Your task to perform on an android device: Open maps Image 0: 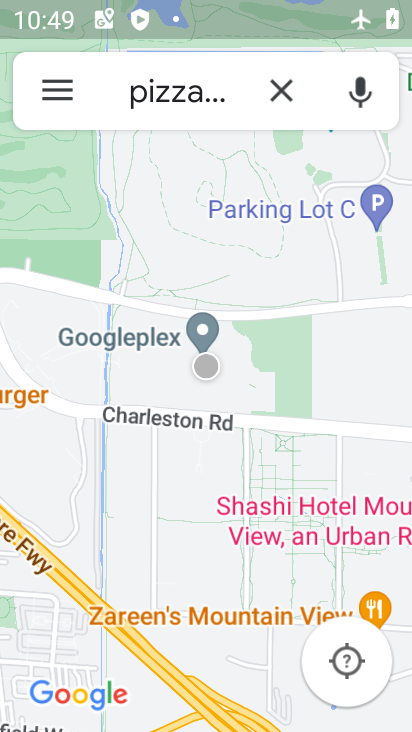
Step 0: click (272, 81)
Your task to perform on an android device: Open maps Image 1: 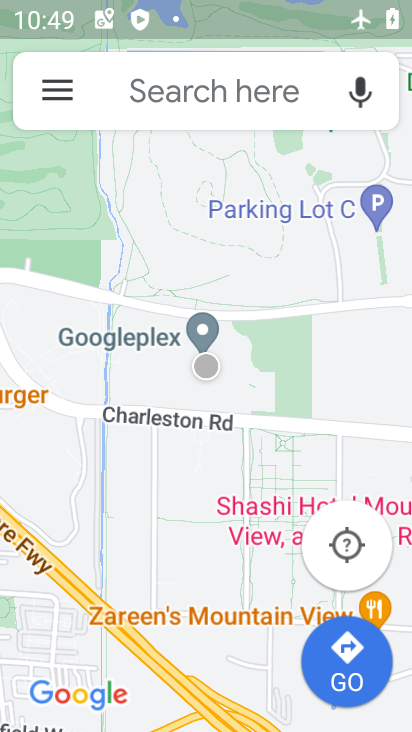
Step 1: task complete